Your task to perform on an android device: find snoozed emails in the gmail app Image 0: 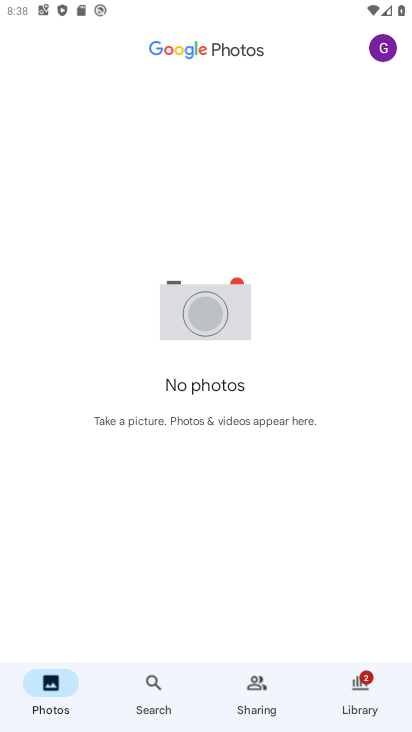
Step 0: task complete